Your task to perform on an android device: open wifi settings Image 0: 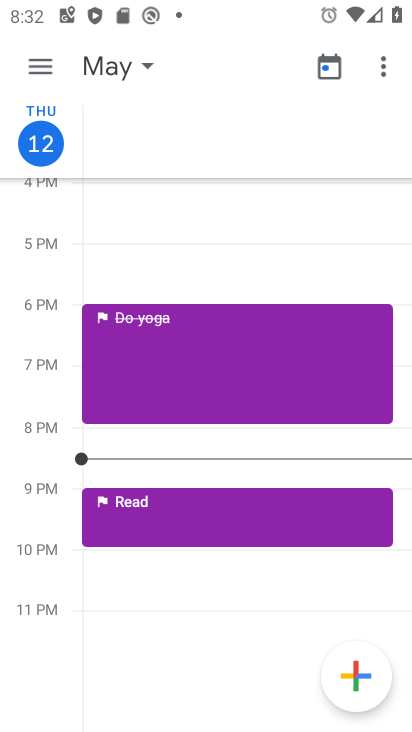
Step 0: press home button
Your task to perform on an android device: open wifi settings Image 1: 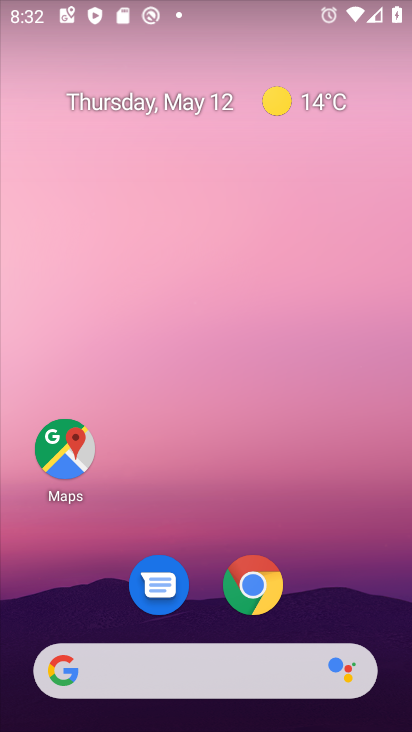
Step 1: drag from (216, 470) to (203, 52)
Your task to perform on an android device: open wifi settings Image 2: 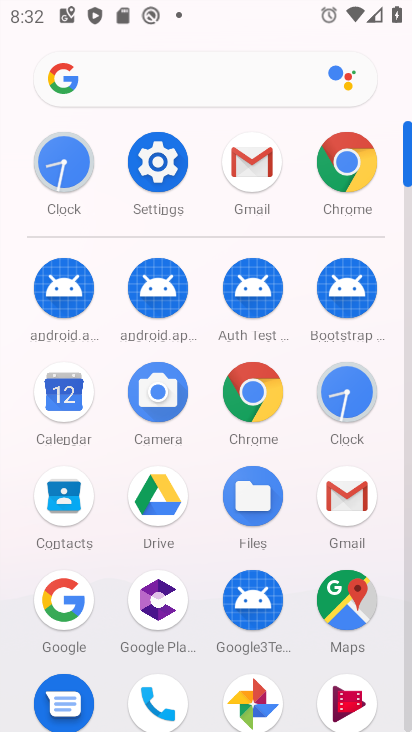
Step 2: click (158, 164)
Your task to perform on an android device: open wifi settings Image 3: 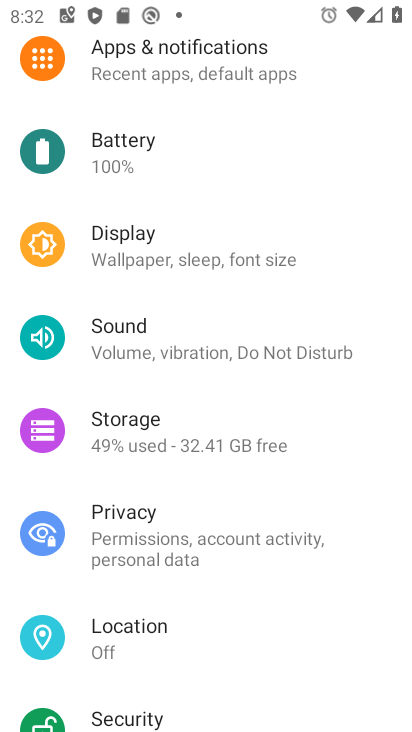
Step 3: drag from (158, 164) to (217, 590)
Your task to perform on an android device: open wifi settings Image 4: 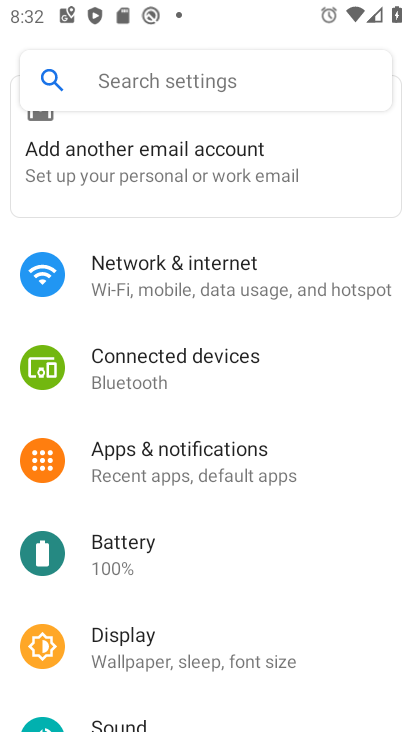
Step 4: click (232, 277)
Your task to perform on an android device: open wifi settings Image 5: 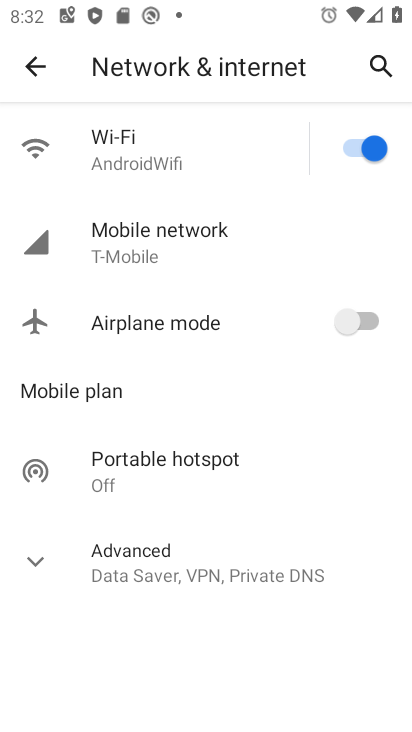
Step 5: click (142, 158)
Your task to perform on an android device: open wifi settings Image 6: 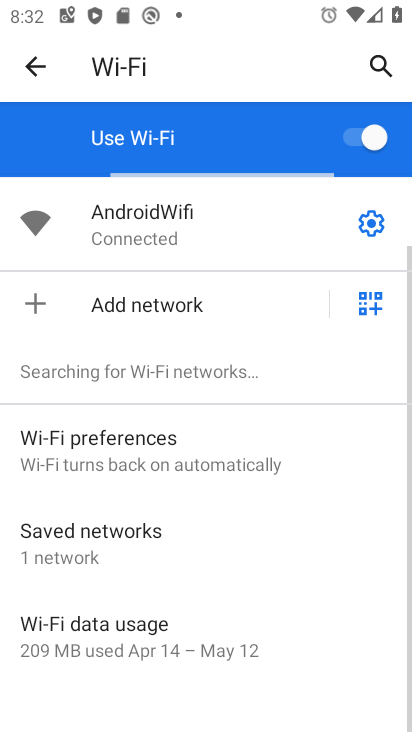
Step 6: task complete